Your task to perform on an android device: open chrome privacy settings Image 0: 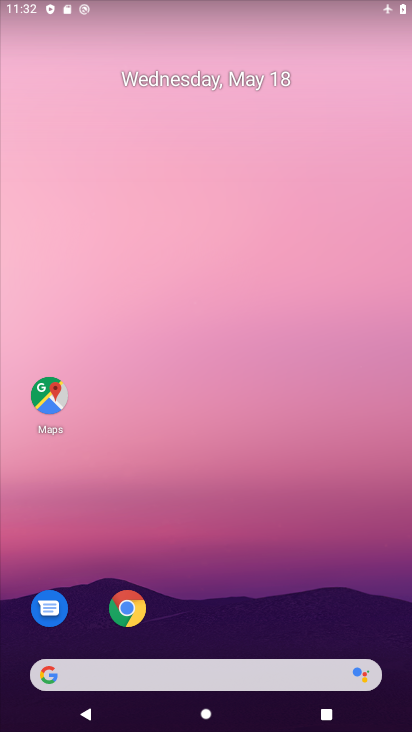
Step 0: press home button
Your task to perform on an android device: open chrome privacy settings Image 1: 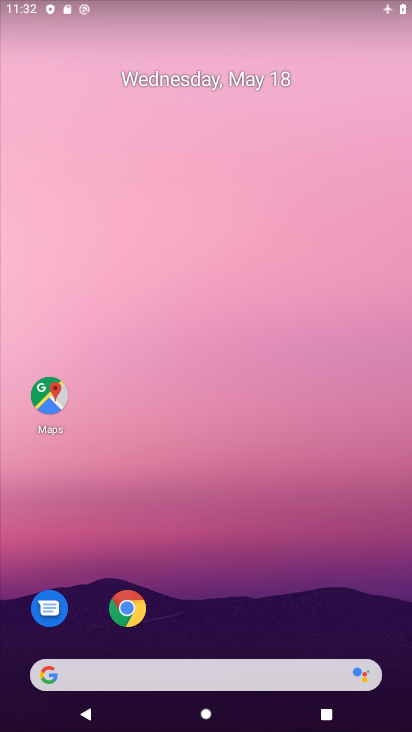
Step 1: drag from (342, 596) to (339, 132)
Your task to perform on an android device: open chrome privacy settings Image 2: 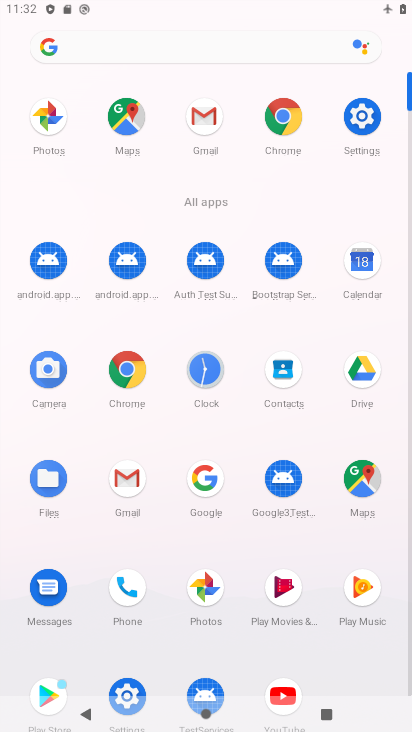
Step 2: click (137, 686)
Your task to perform on an android device: open chrome privacy settings Image 3: 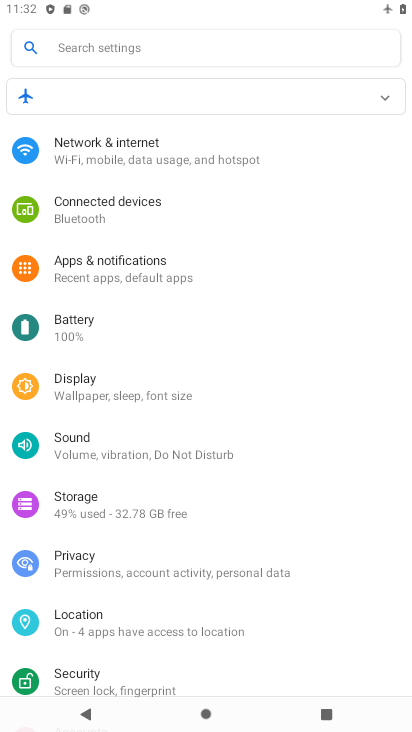
Step 3: press home button
Your task to perform on an android device: open chrome privacy settings Image 4: 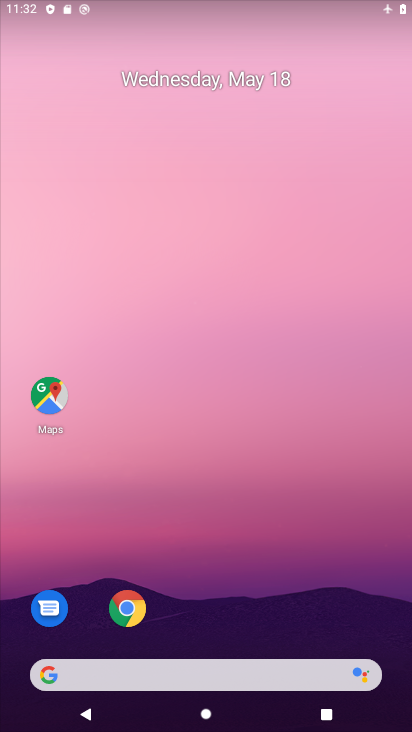
Step 4: drag from (378, 584) to (369, 95)
Your task to perform on an android device: open chrome privacy settings Image 5: 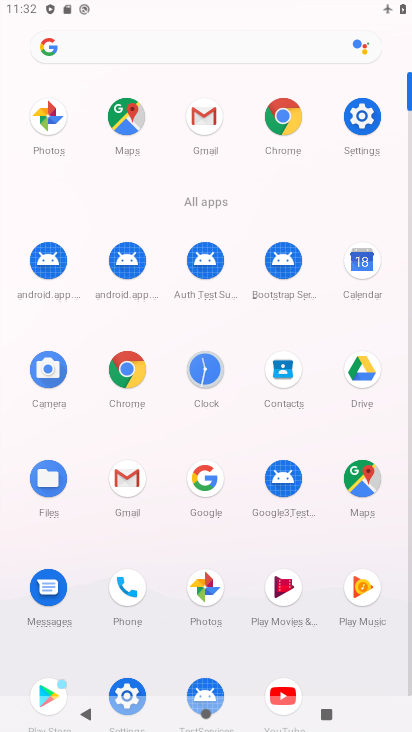
Step 5: click (126, 373)
Your task to perform on an android device: open chrome privacy settings Image 6: 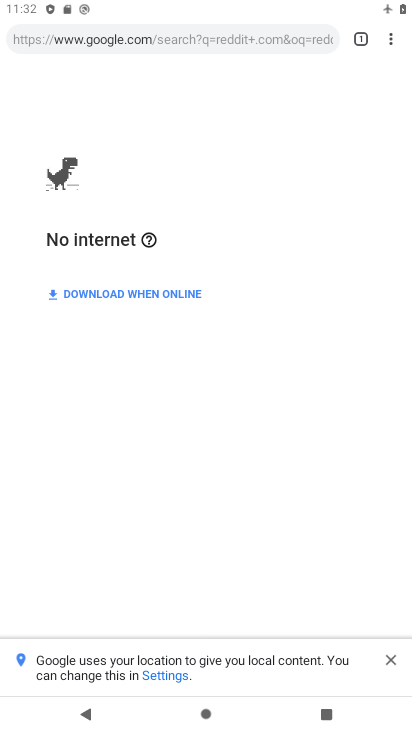
Step 6: drag from (401, 43) to (313, 451)
Your task to perform on an android device: open chrome privacy settings Image 7: 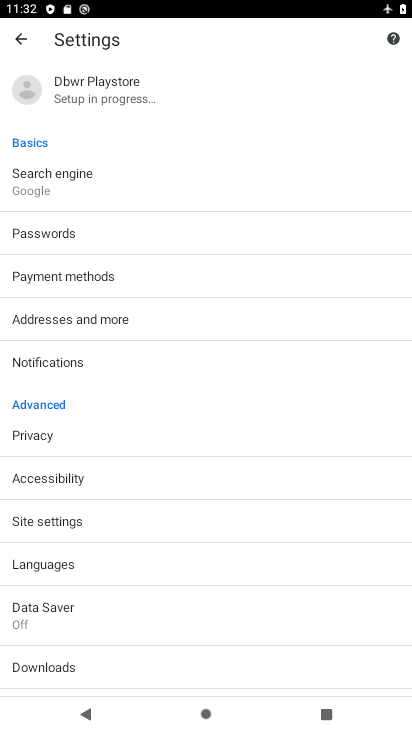
Step 7: click (72, 426)
Your task to perform on an android device: open chrome privacy settings Image 8: 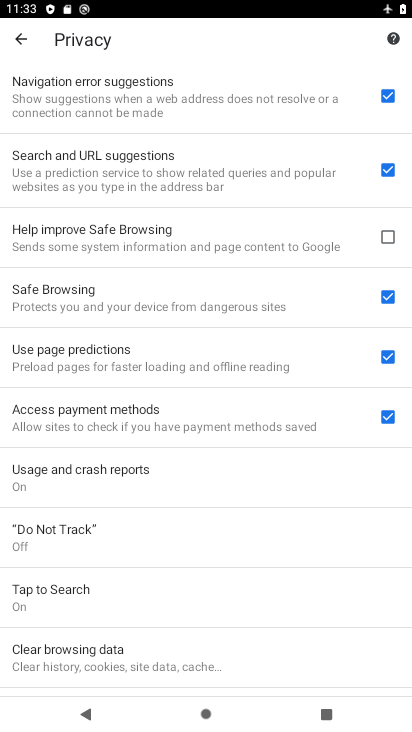
Step 8: task complete